Your task to perform on an android device: Open the map Image 0: 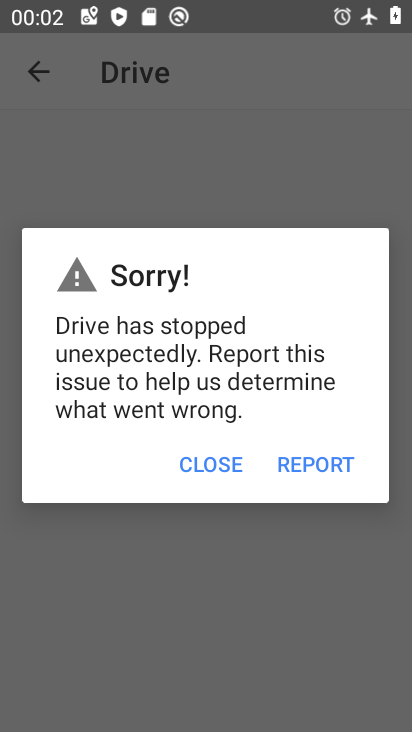
Step 0: press home button
Your task to perform on an android device: Open the map Image 1: 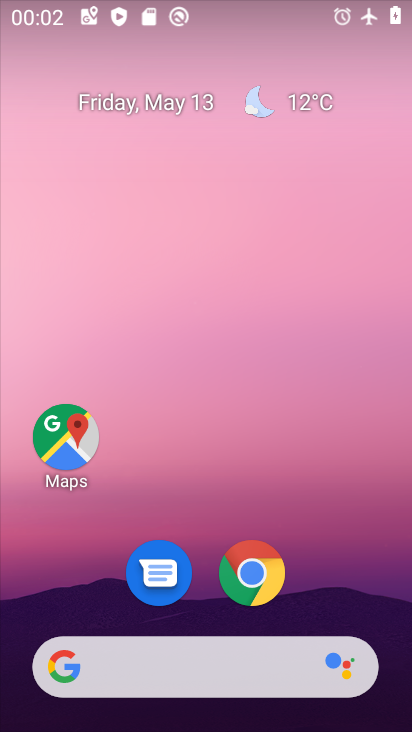
Step 1: click (75, 435)
Your task to perform on an android device: Open the map Image 2: 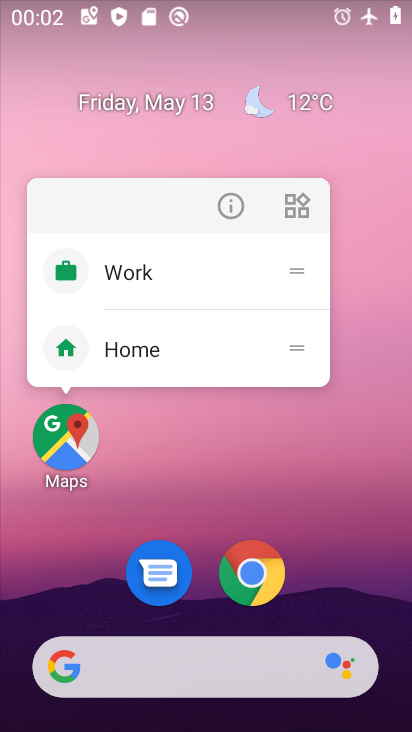
Step 2: click (62, 434)
Your task to perform on an android device: Open the map Image 3: 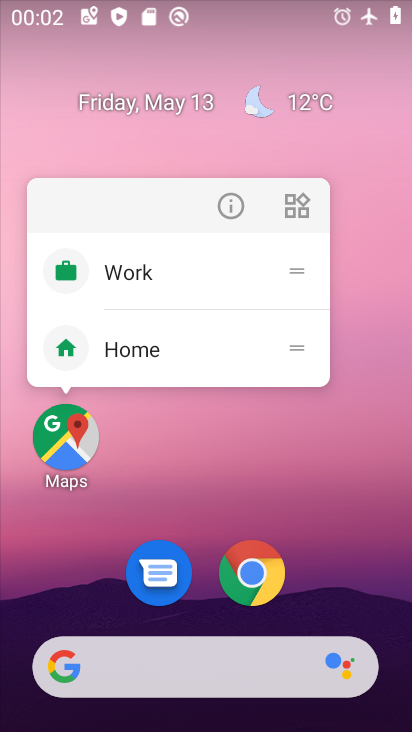
Step 3: click (62, 434)
Your task to perform on an android device: Open the map Image 4: 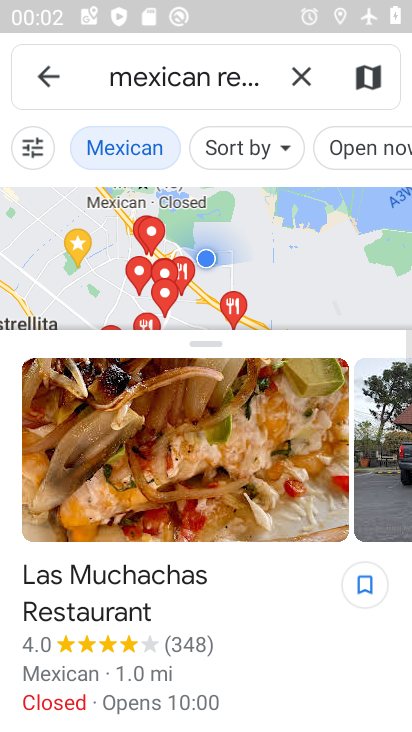
Step 4: click (301, 80)
Your task to perform on an android device: Open the map Image 5: 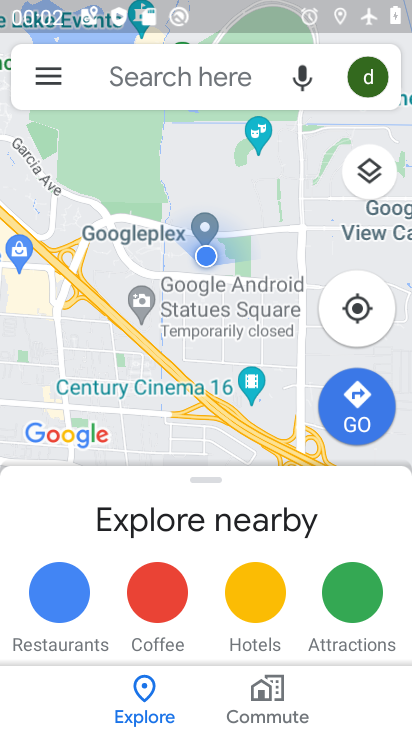
Step 5: task complete